Your task to perform on an android device: turn off sleep mode Image 0: 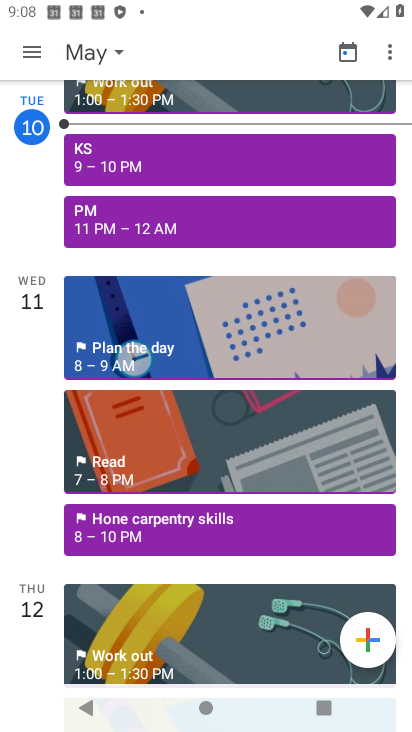
Step 0: press home button
Your task to perform on an android device: turn off sleep mode Image 1: 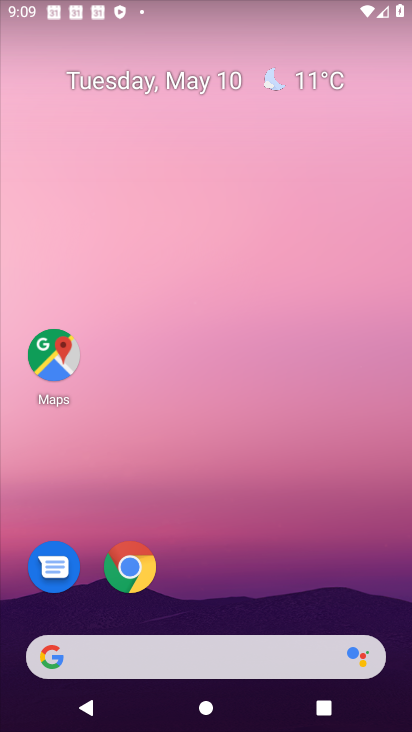
Step 1: drag from (178, 633) to (151, 178)
Your task to perform on an android device: turn off sleep mode Image 2: 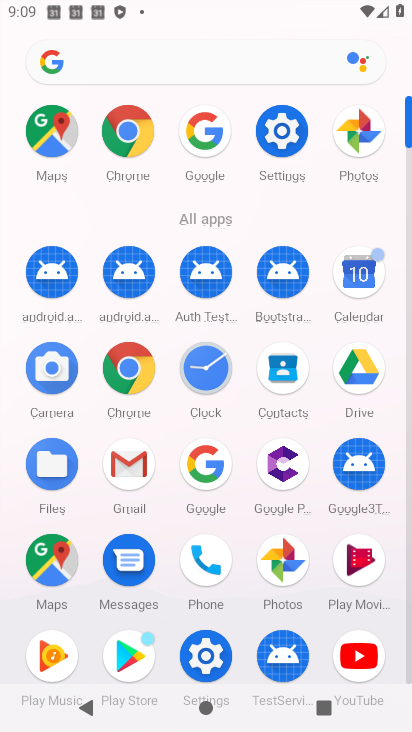
Step 2: click (281, 127)
Your task to perform on an android device: turn off sleep mode Image 3: 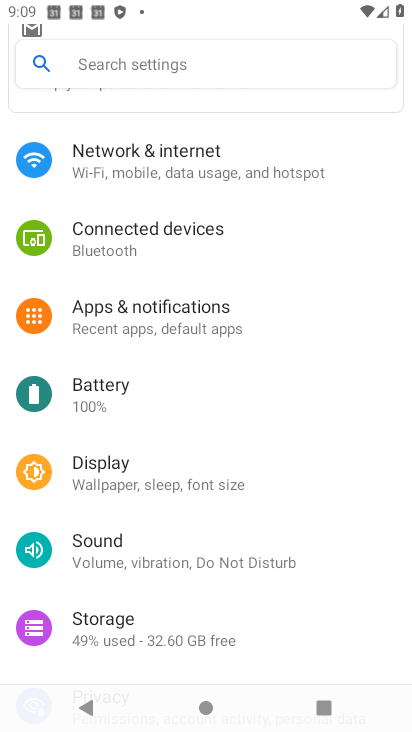
Step 3: click (144, 474)
Your task to perform on an android device: turn off sleep mode Image 4: 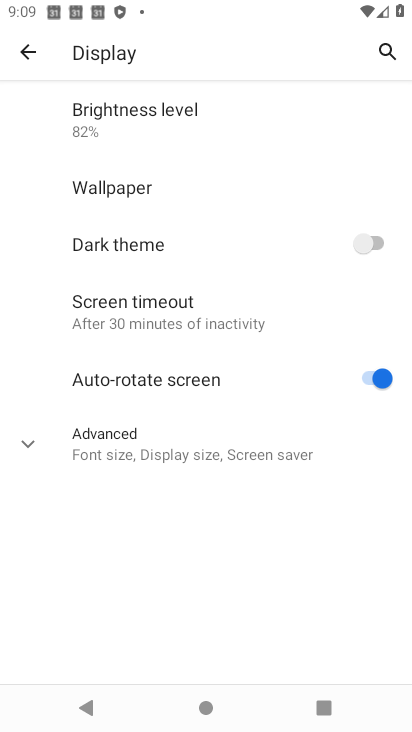
Step 4: click (108, 316)
Your task to perform on an android device: turn off sleep mode Image 5: 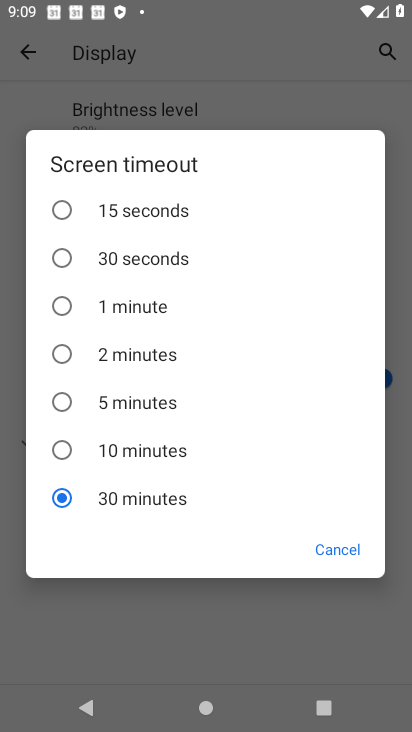
Step 5: click (101, 211)
Your task to perform on an android device: turn off sleep mode Image 6: 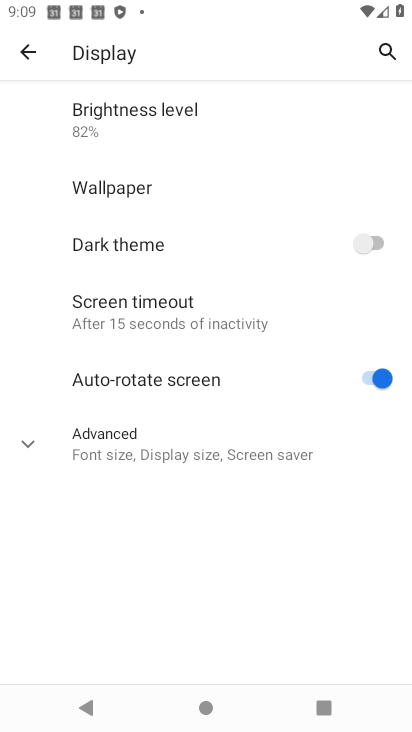
Step 6: task complete